Your task to perform on an android device: change the clock style Image 0: 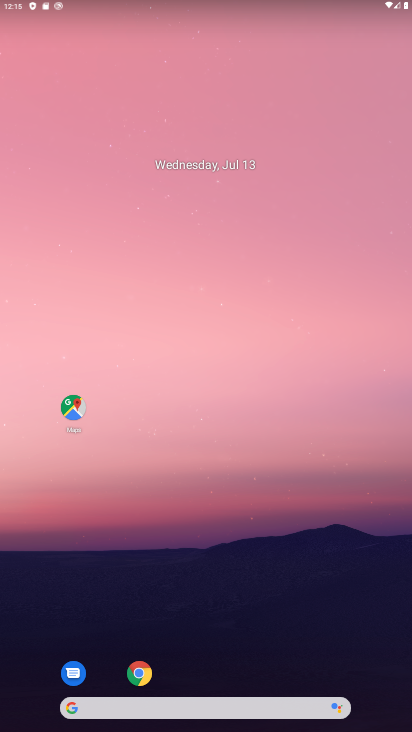
Step 0: drag from (240, 660) to (235, 108)
Your task to perform on an android device: change the clock style Image 1: 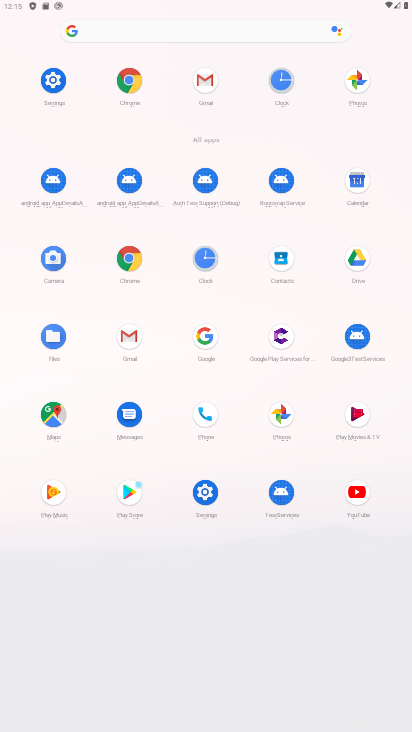
Step 1: click (265, 90)
Your task to perform on an android device: change the clock style Image 2: 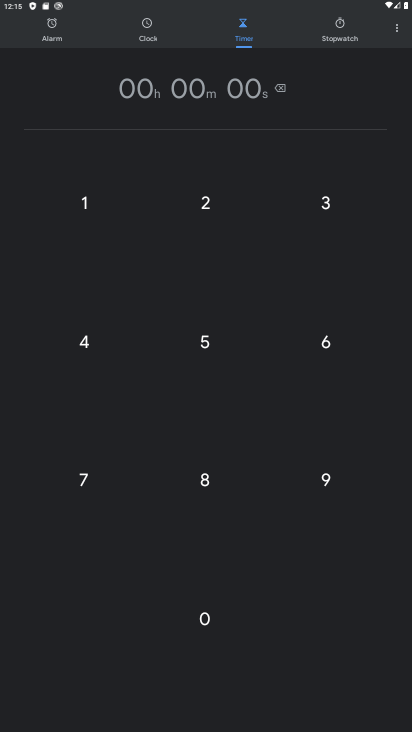
Step 2: click (392, 39)
Your task to perform on an android device: change the clock style Image 3: 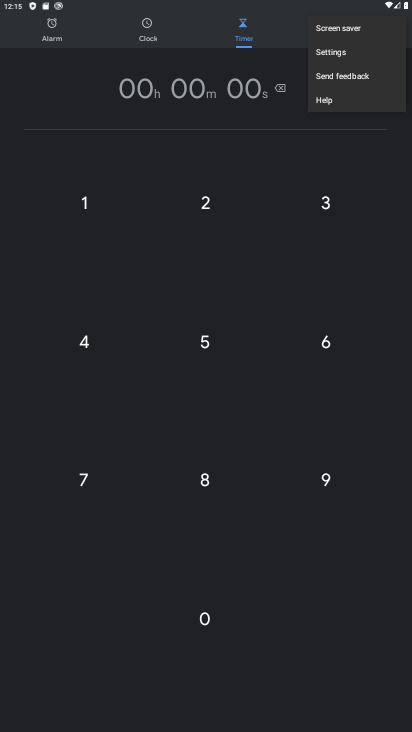
Step 3: click (365, 57)
Your task to perform on an android device: change the clock style Image 4: 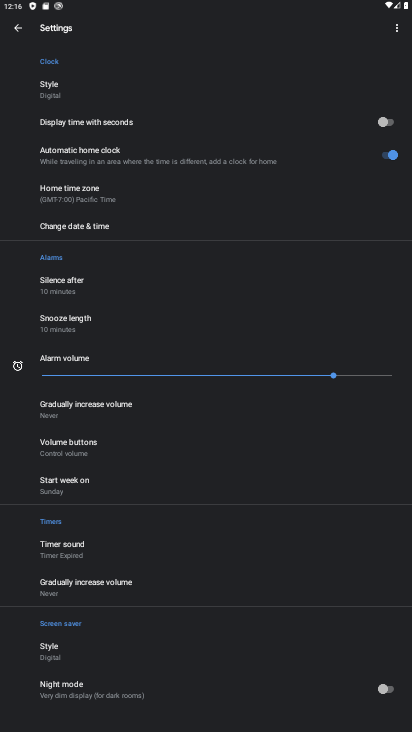
Step 4: click (166, 84)
Your task to perform on an android device: change the clock style Image 5: 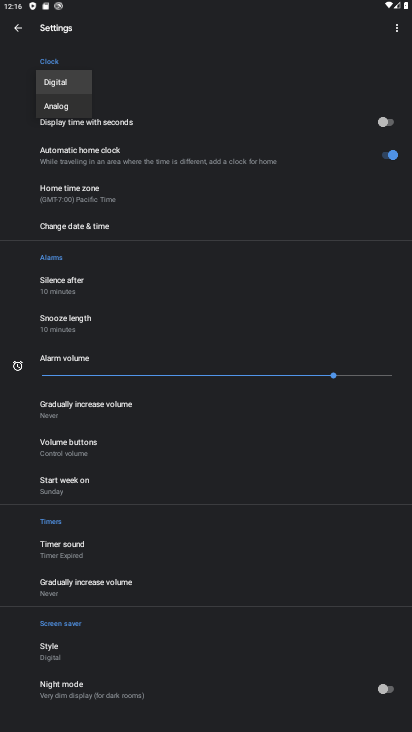
Step 5: click (76, 98)
Your task to perform on an android device: change the clock style Image 6: 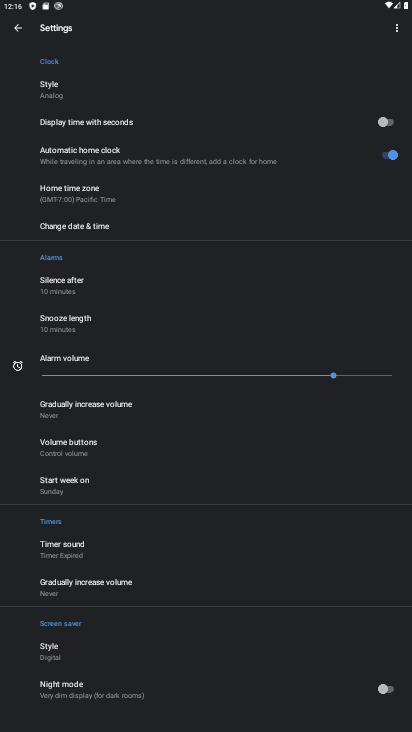
Step 6: task complete